Your task to perform on an android device: Open battery settings Image 0: 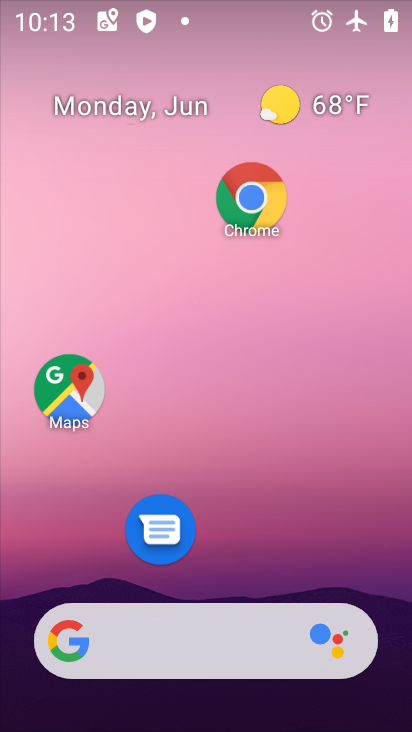
Step 0: drag from (232, 551) to (223, 145)
Your task to perform on an android device: Open battery settings Image 1: 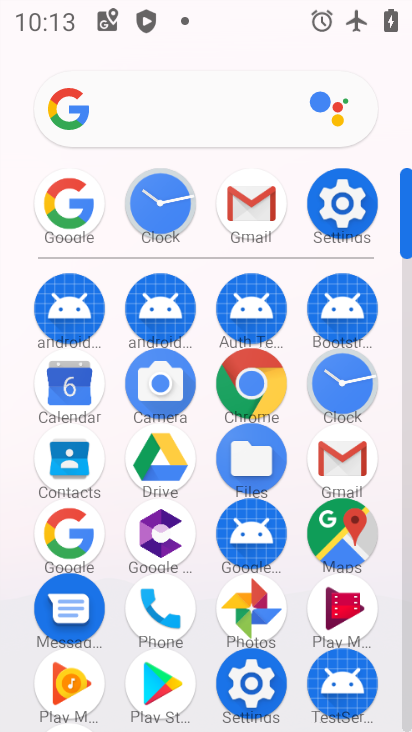
Step 1: click (351, 211)
Your task to perform on an android device: Open battery settings Image 2: 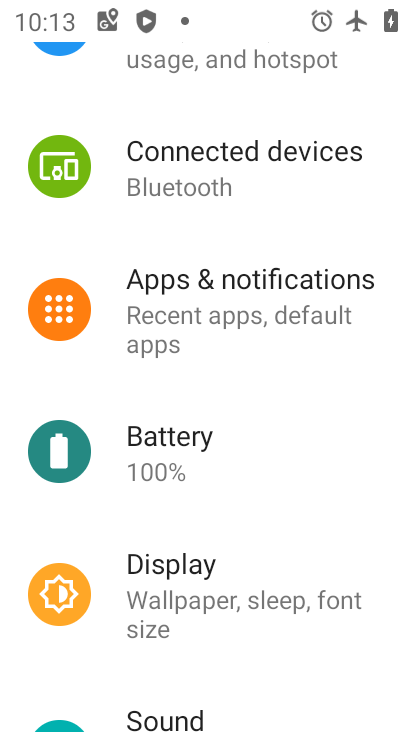
Step 2: click (169, 459)
Your task to perform on an android device: Open battery settings Image 3: 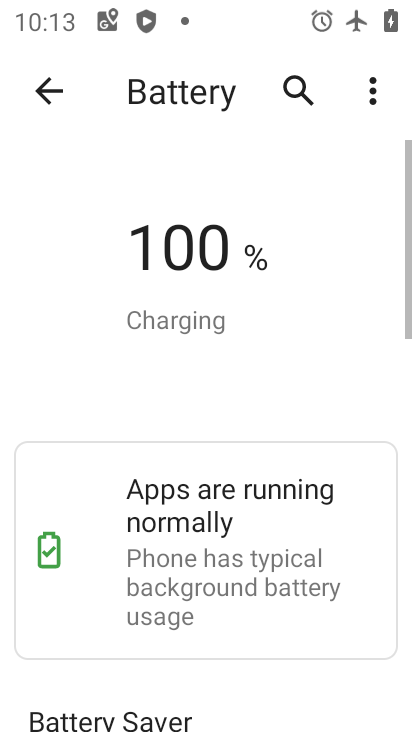
Step 3: task complete